Your task to perform on an android device: What is the recent news? Image 0: 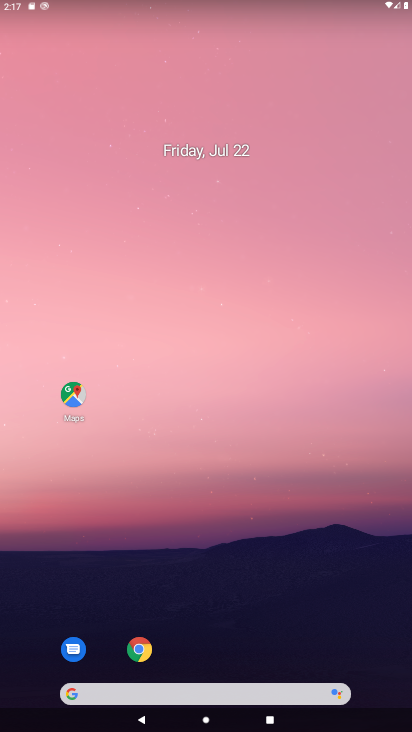
Step 0: drag from (12, 227) to (314, 240)
Your task to perform on an android device: What is the recent news? Image 1: 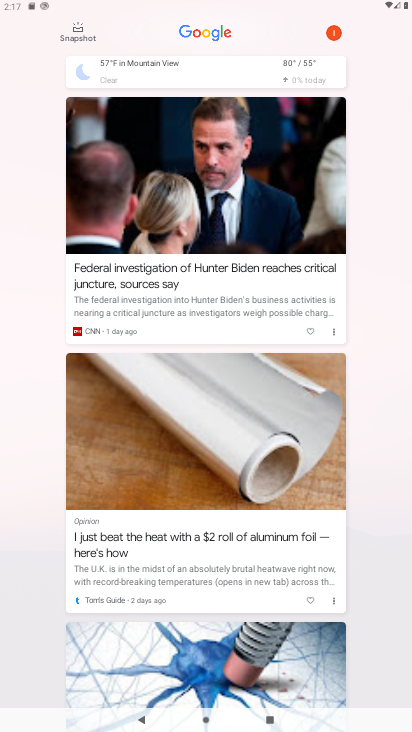
Step 1: task complete